Your task to perform on an android device: change the clock display to show seconds Image 0: 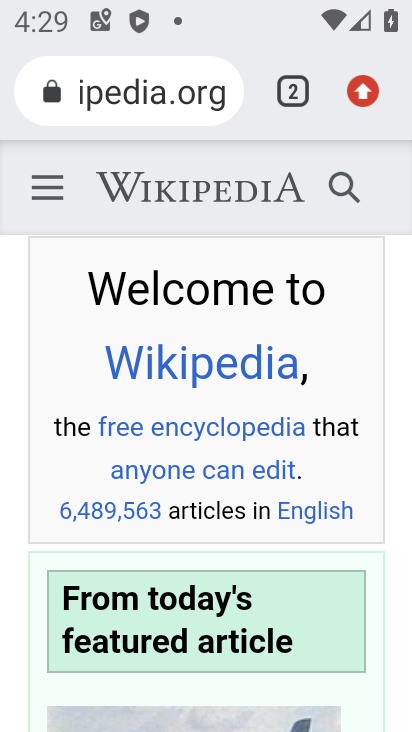
Step 0: press home button
Your task to perform on an android device: change the clock display to show seconds Image 1: 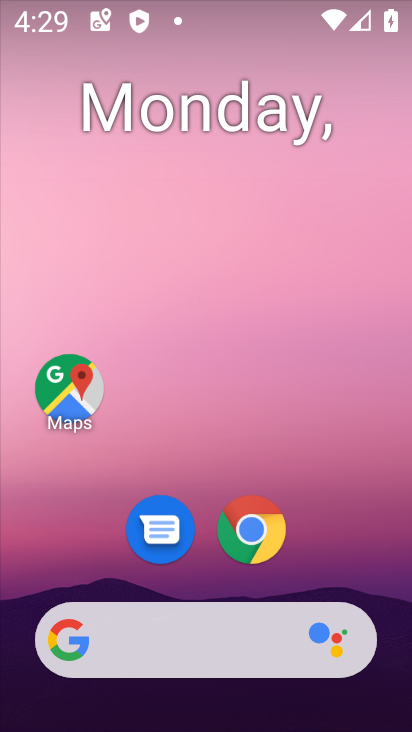
Step 1: drag from (209, 716) to (211, 337)
Your task to perform on an android device: change the clock display to show seconds Image 2: 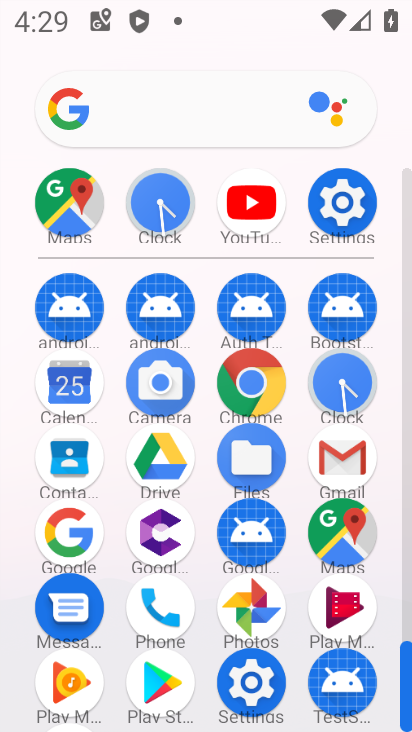
Step 2: click (342, 378)
Your task to perform on an android device: change the clock display to show seconds Image 3: 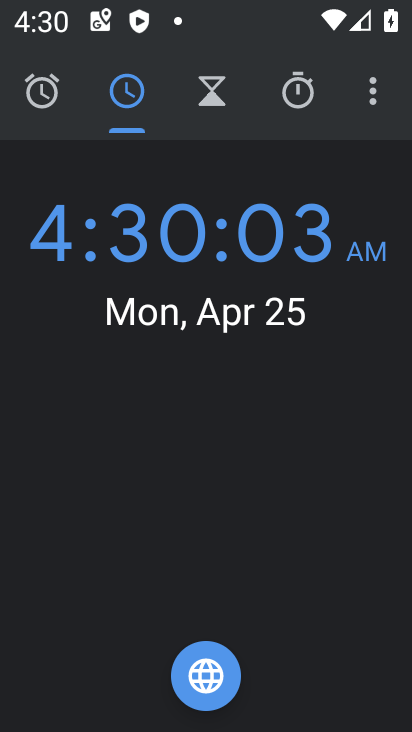
Step 3: click (374, 86)
Your task to perform on an android device: change the clock display to show seconds Image 4: 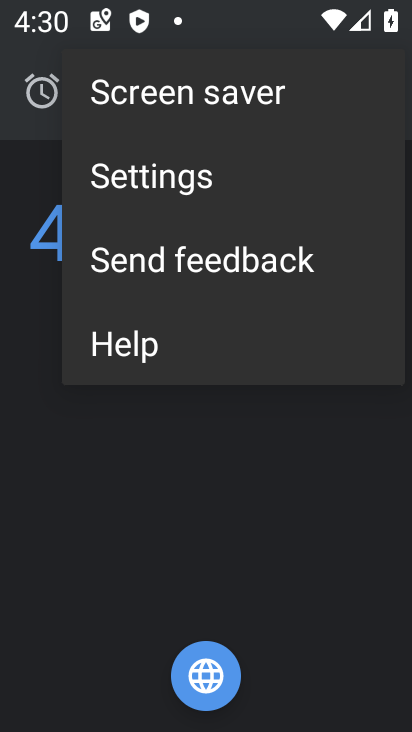
Step 4: click (163, 179)
Your task to perform on an android device: change the clock display to show seconds Image 5: 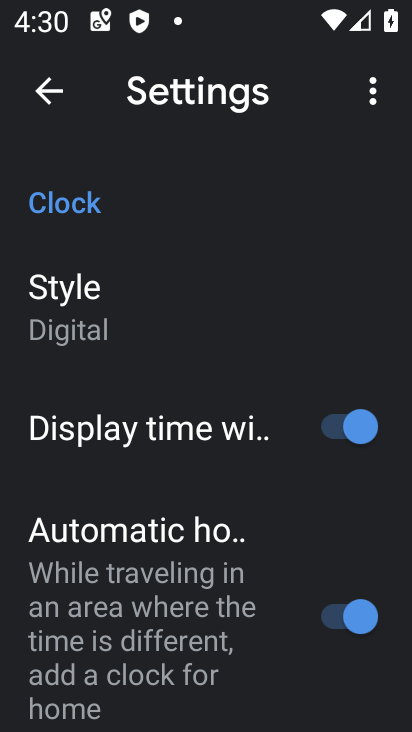
Step 5: task complete